Your task to perform on an android device: Open eBay Image 0: 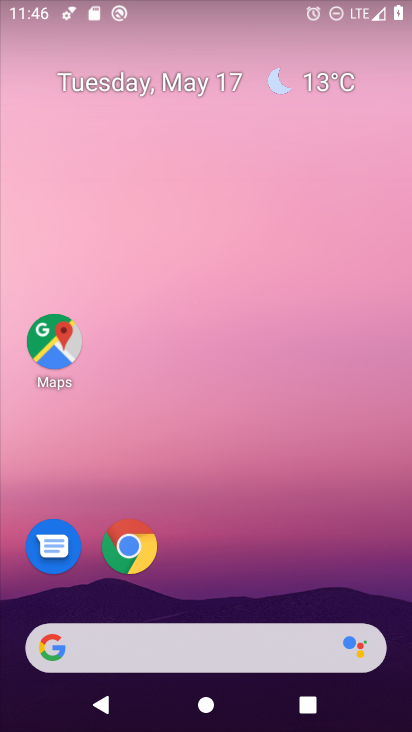
Step 0: click (130, 547)
Your task to perform on an android device: Open eBay Image 1: 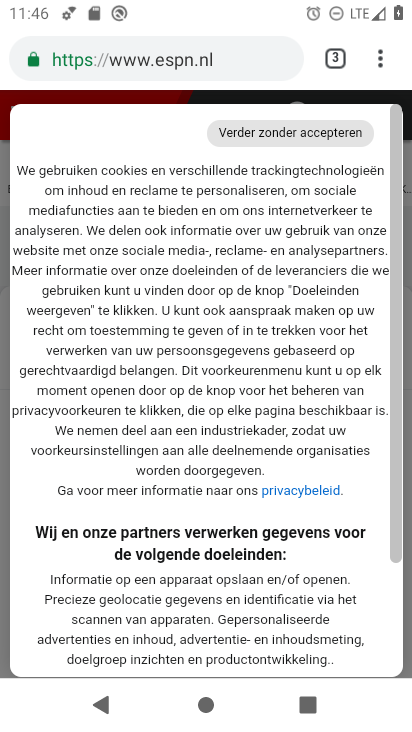
Step 1: click (132, 63)
Your task to perform on an android device: Open eBay Image 2: 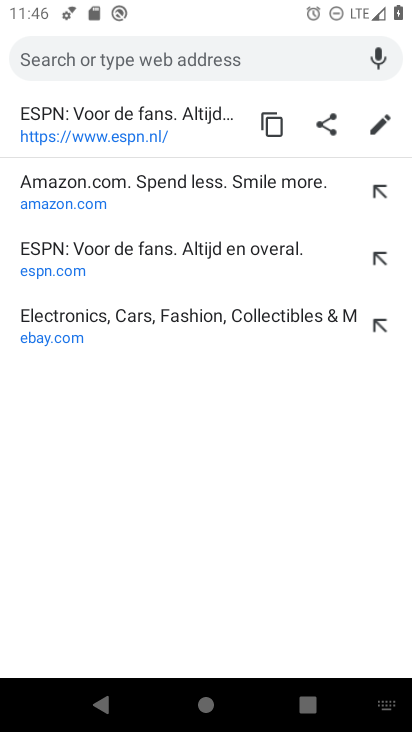
Step 2: click (49, 340)
Your task to perform on an android device: Open eBay Image 3: 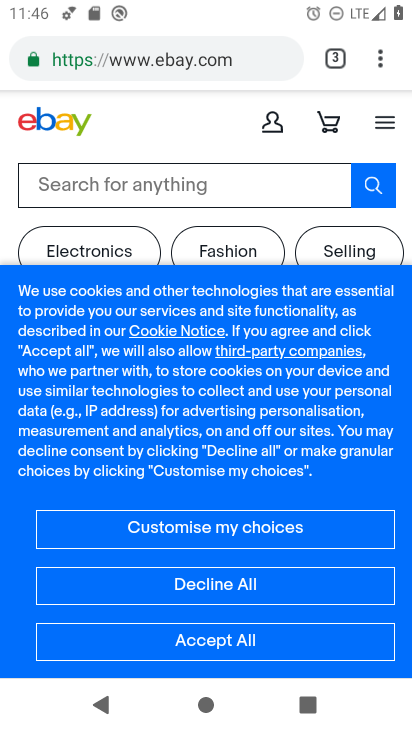
Step 3: task complete